Your task to perform on an android device: open a bookmark in the chrome app Image 0: 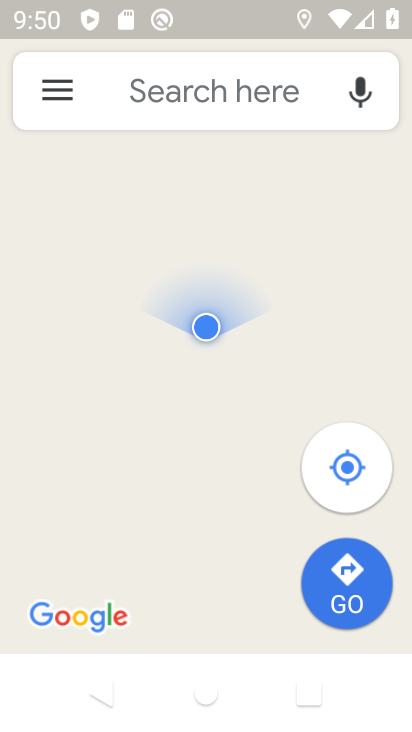
Step 0: press home button
Your task to perform on an android device: open a bookmark in the chrome app Image 1: 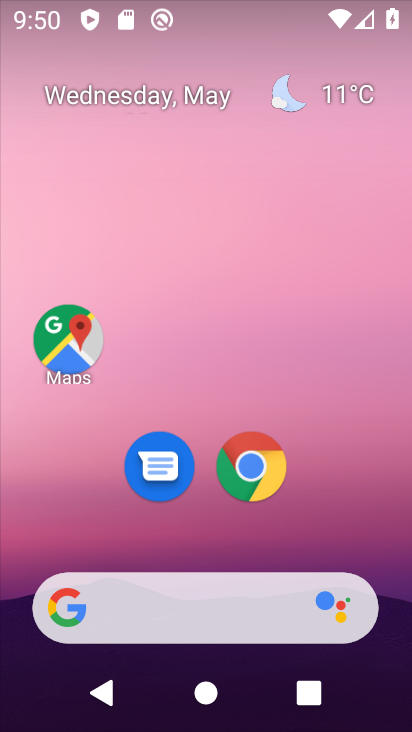
Step 1: click (264, 494)
Your task to perform on an android device: open a bookmark in the chrome app Image 2: 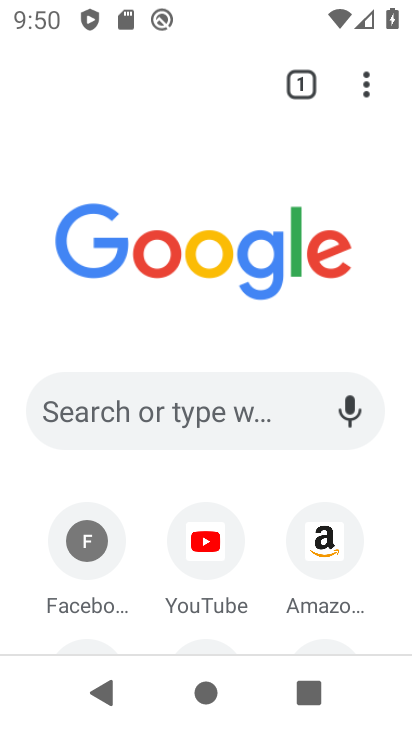
Step 2: click (361, 85)
Your task to perform on an android device: open a bookmark in the chrome app Image 3: 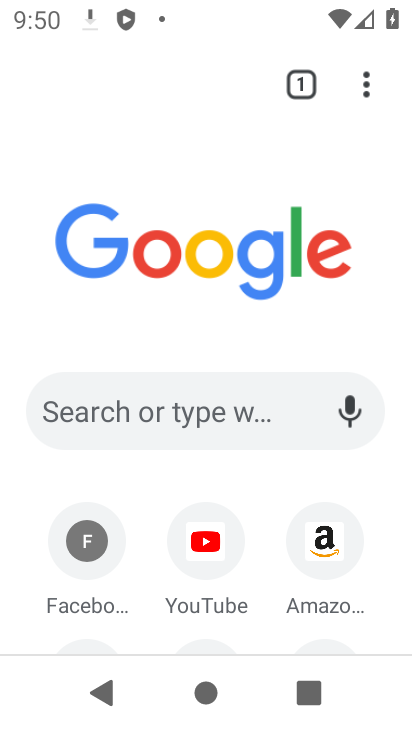
Step 3: click (371, 80)
Your task to perform on an android device: open a bookmark in the chrome app Image 4: 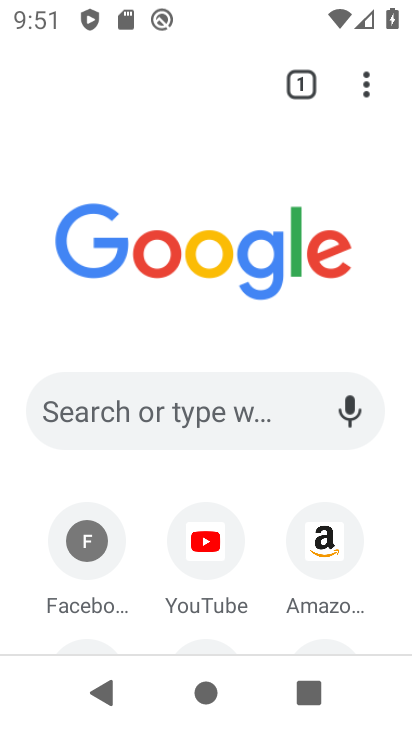
Step 4: click (372, 83)
Your task to perform on an android device: open a bookmark in the chrome app Image 5: 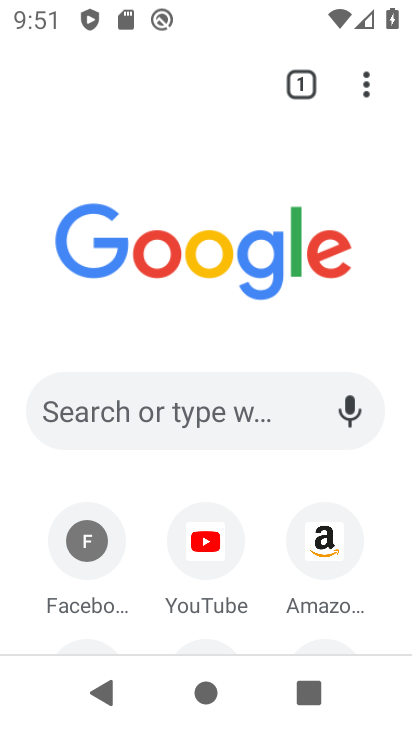
Step 5: click (368, 81)
Your task to perform on an android device: open a bookmark in the chrome app Image 6: 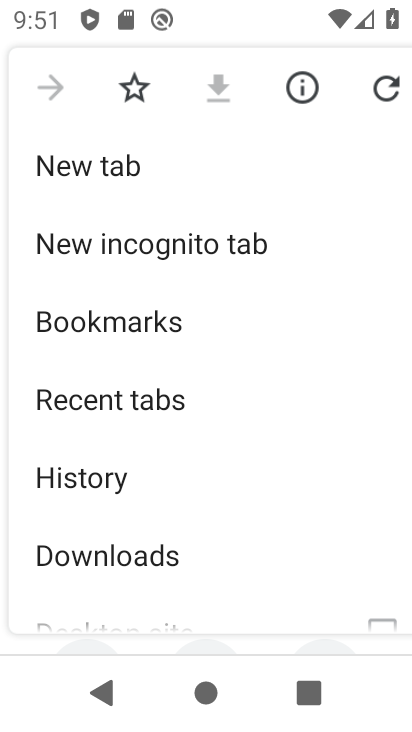
Step 6: click (101, 319)
Your task to perform on an android device: open a bookmark in the chrome app Image 7: 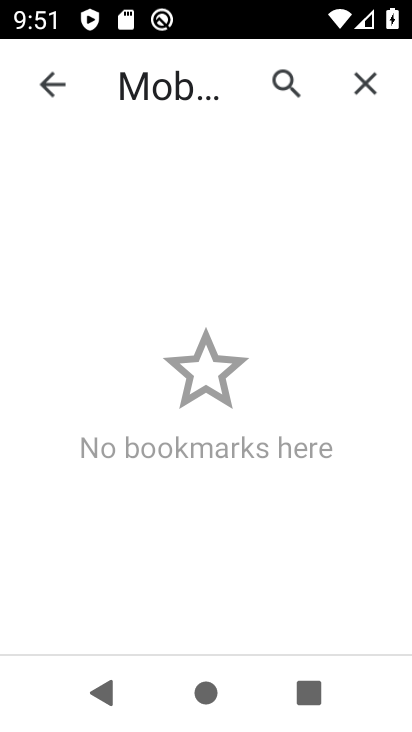
Step 7: task complete